Your task to perform on an android device: What's the weather going to be this weekend? Image 0: 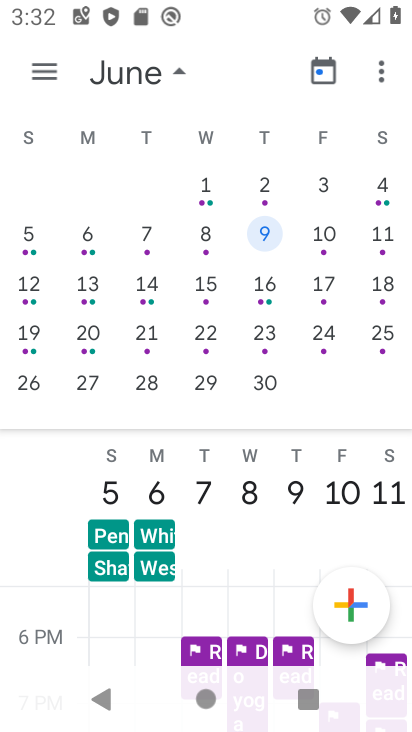
Step 0: press home button
Your task to perform on an android device: What's the weather going to be this weekend? Image 1: 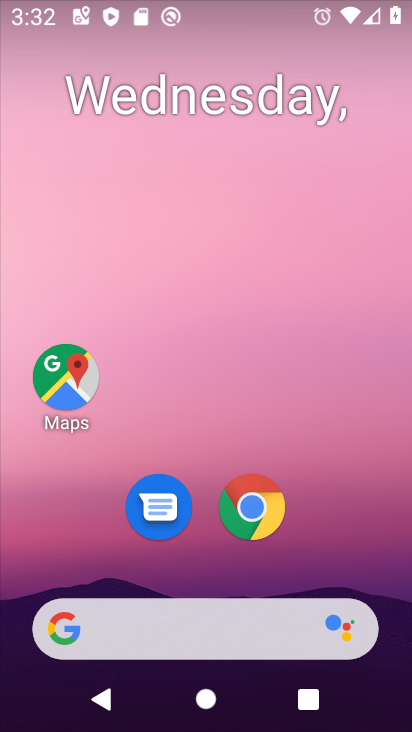
Step 1: click (238, 612)
Your task to perform on an android device: What's the weather going to be this weekend? Image 2: 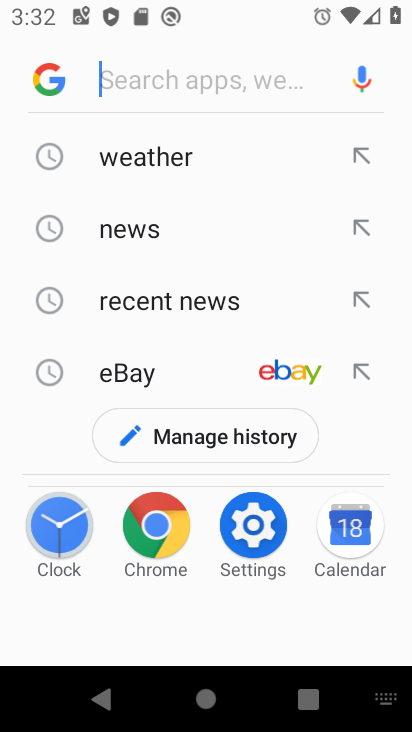
Step 2: click (154, 157)
Your task to perform on an android device: What's the weather going to be this weekend? Image 3: 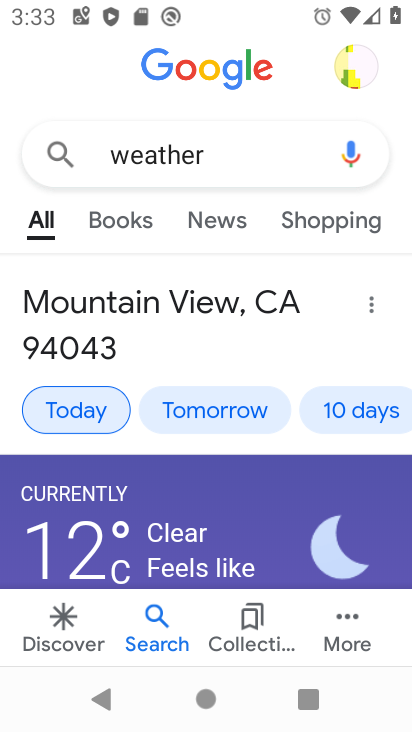
Step 3: click (314, 405)
Your task to perform on an android device: What's the weather going to be this weekend? Image 4: 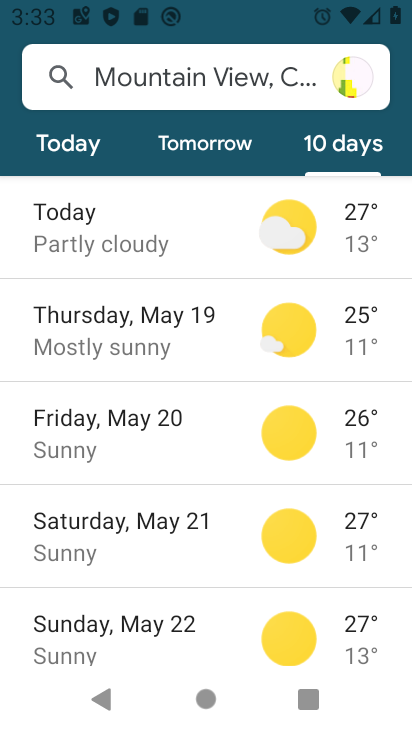
Step 4: drag from (102, 229) to (175, 48)
Your task to perform on an android device: What's the weather going to be this weekend? Image 5: 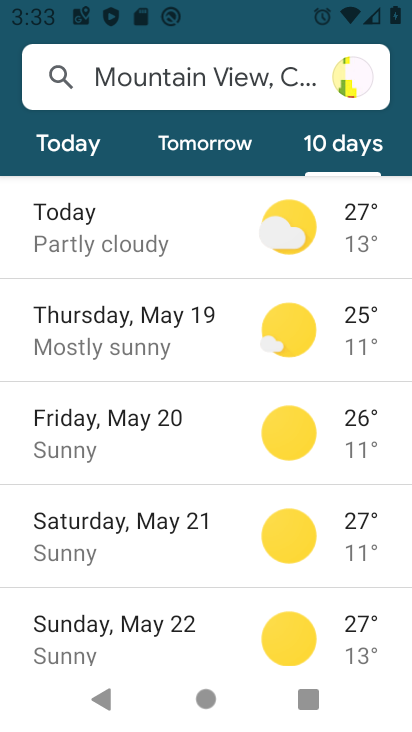
Step 5: drag from (217, 570) to (300, 112)
Your task to perform on an android device: What's the weather going to be this weekend? Image 6: 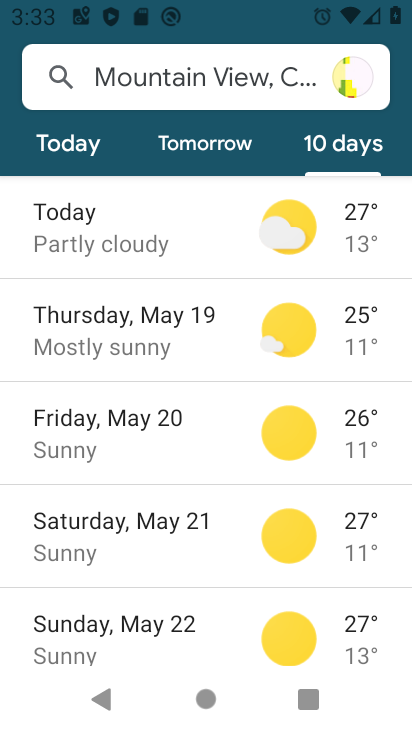
Step 6: click (300, 112)
Your task to perform on an android device: What's the weather going to be this weekend? Image 7: 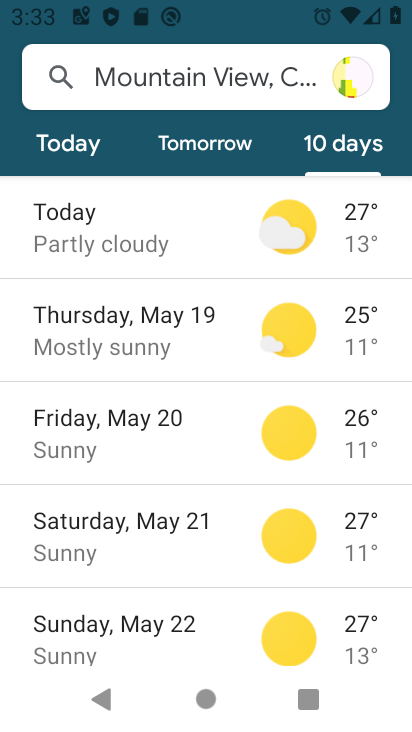
Step 7: task complete